Your task to perform on an android device: see tabs open on other devices in the chrome app Image 0: 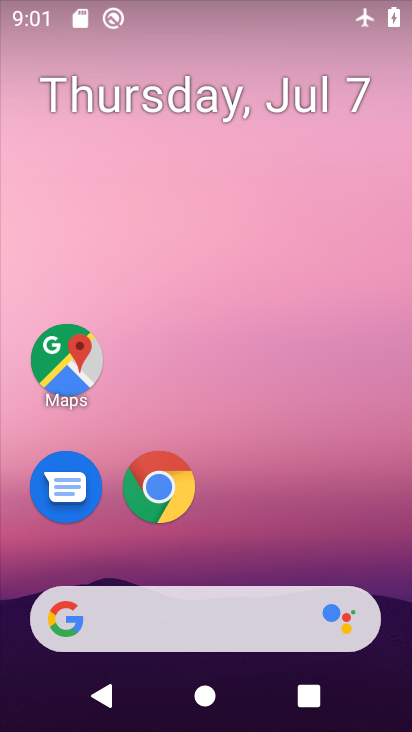
Step 0: drag from (374, 562) to (328, 99)
Your task to perform on an android device: see tabs open on other devices in the chrome app Image 1: 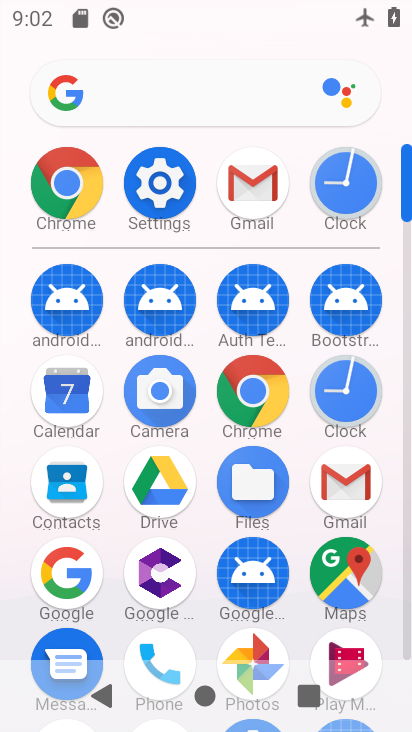
Step 1: click (266, 384)
Your task to perform on an android device: see tabs open on other devices in the chrome app Image 2: 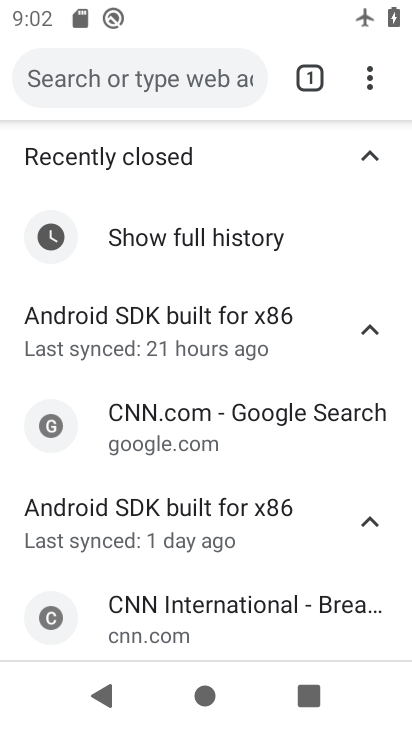
Step 2: click (366, 90)
Your task to perform on an android device: see tabs open on other devices in the chrome app Image 3: 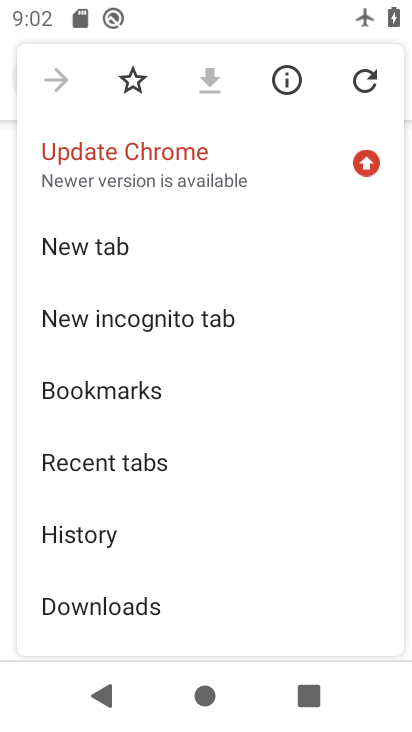
Step 3: click (164, 472)
Your task to perform on an android device: see tabs open on other devices in the chrome app Image 4: 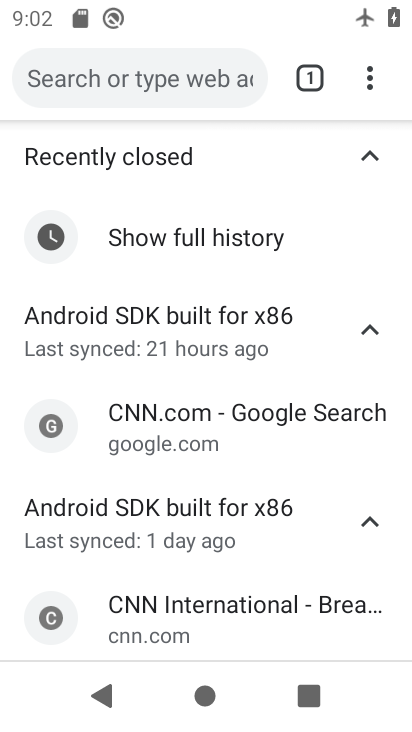
Step 4: click (315, 85)
Your task to perform on an android device: see tabs open on other devices in the chrome app Image 5: 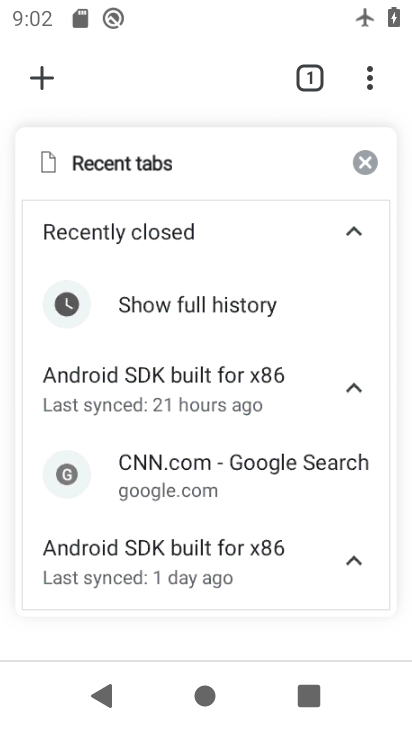
Step 5: task complete